Your task to perform on an android device: Go to Yahoo.com Image 0: 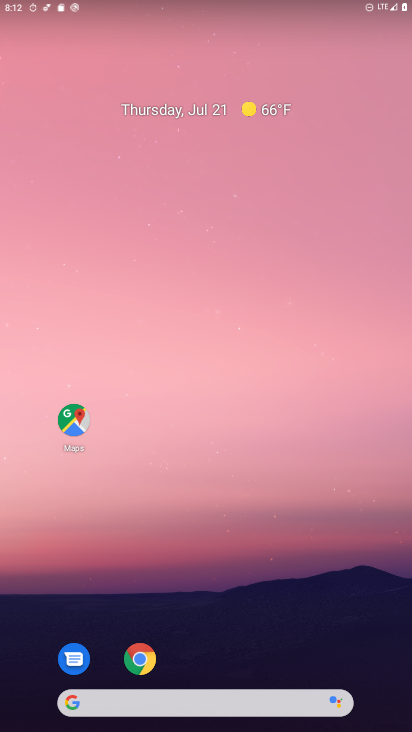
Step 0: drag from (214, 676) to (17, 4)
Your task to perform on an android device: Go to Yahoo.com Image 1: 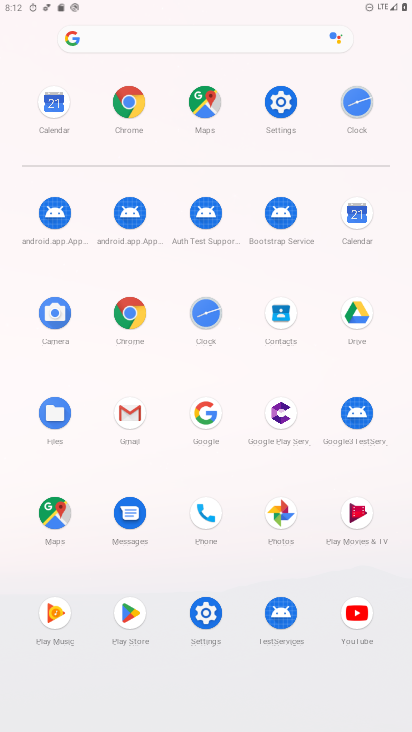
Step 1: click (178, 36)
Your task to perform on an android device: Go to Yahoo.com Image 2: 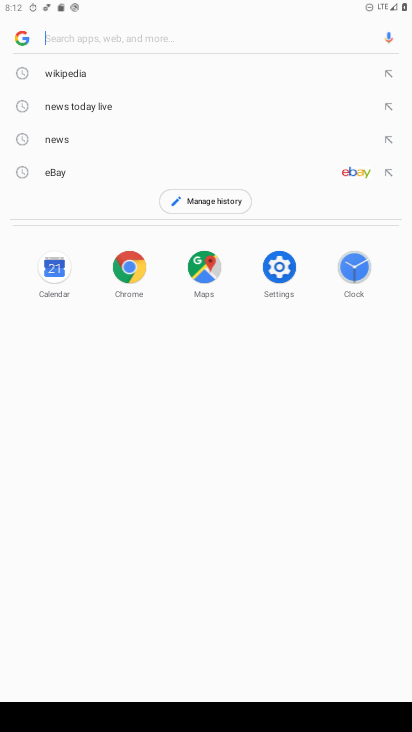
Step 2: click (121, 37)
Your task to perform on an android device: Go to Yahoo.com Image 3: 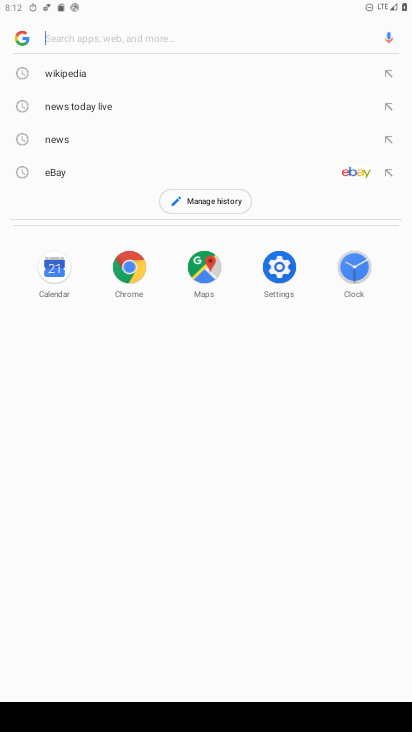
Step 3: type "Yahoo.com"
Your task to perform on an android device: Go to Yahoo.com Image 4: 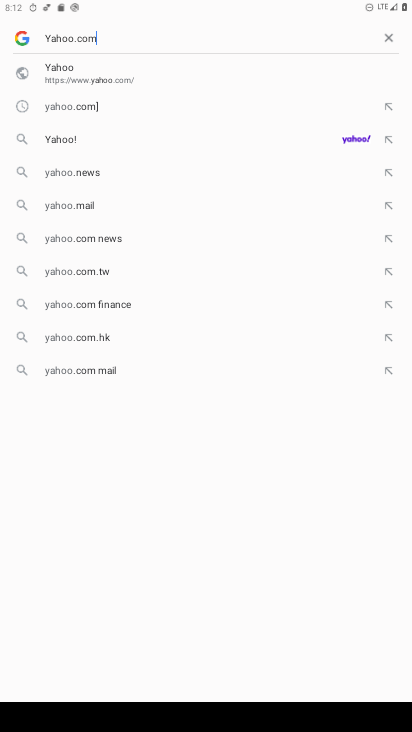
Step 4: type ""
Your task to perform on an android device: Go to Yahoo.com Image 5: 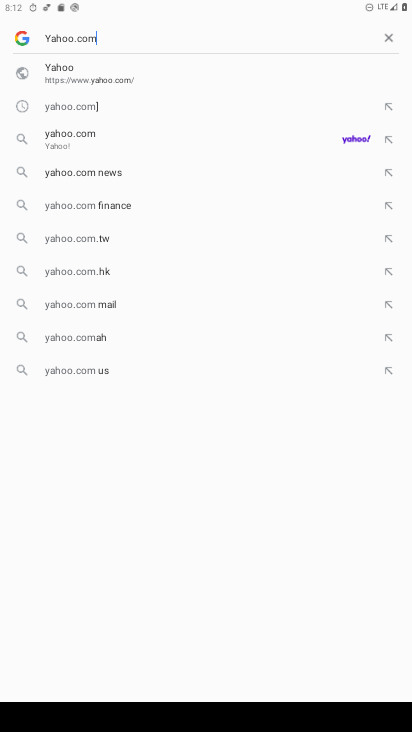
Step 5: click (94, 64)
Your task to perform on an android device: Go to Yahoo.com Image 6: 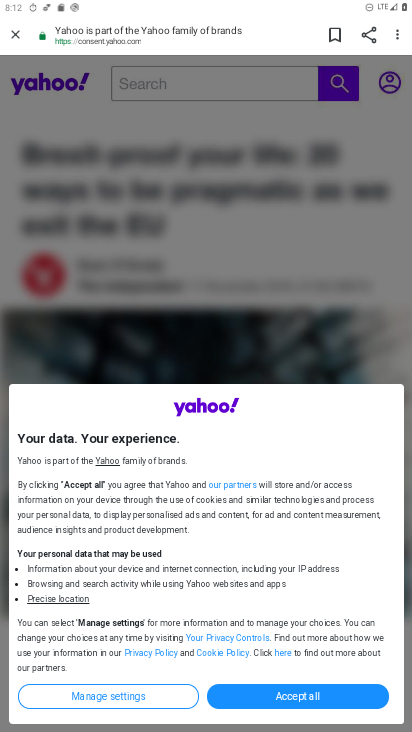
Step 6: task complete